Your task to perform on an android device: Is it going to rain tomorrow? Image 0: 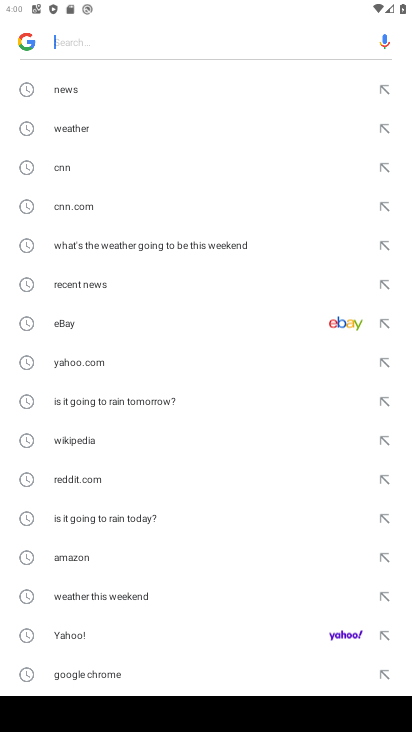
Step 0: press home button
Your task to perform on an android device: Is it going to rain tomorrow? Image 1: 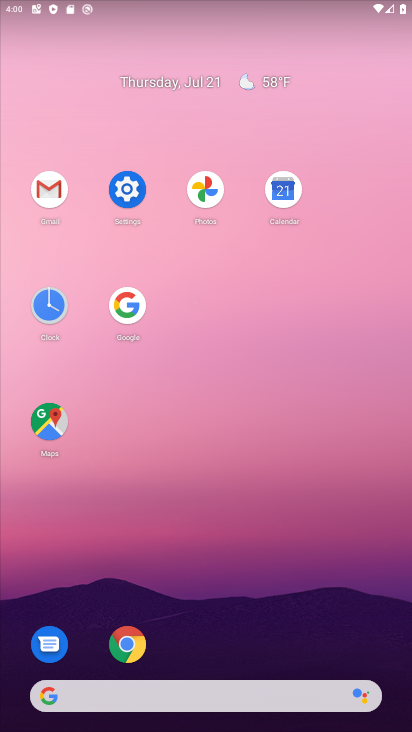
Step 1: click (128, 299)
Your task to perform on an android device: Is it going to rain tomorrow? Image 2: 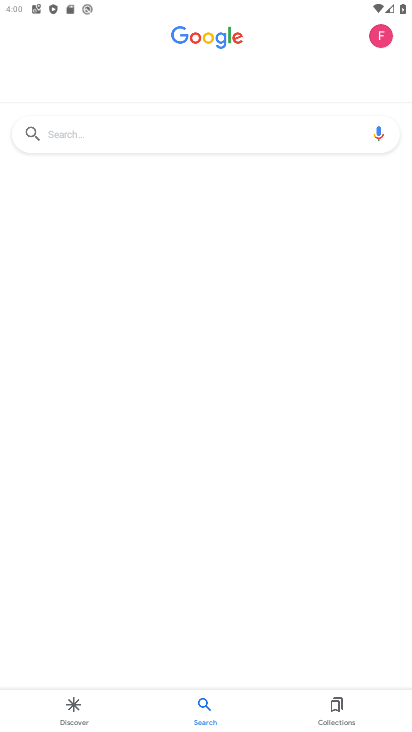
Step 2: drag from (271, 126) to (174, 126)
Your task to perform on an android device: Is it going to rain tomorrow? Image 3: 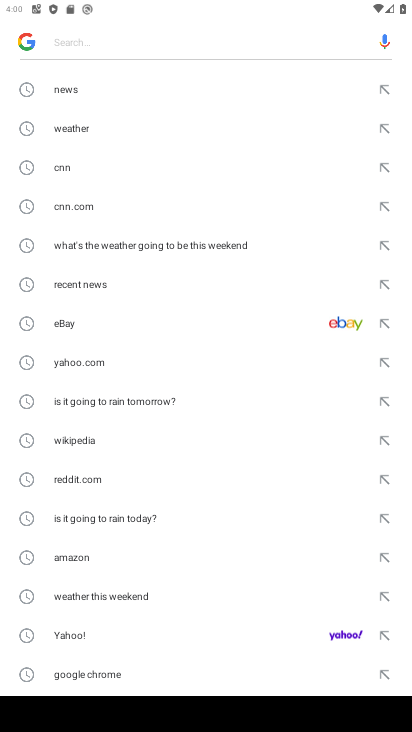
Step 3: drag from (271, 126) to (174, 126)
Your task to perform on an android device: Is it going to rain tomorrow? Image 4: 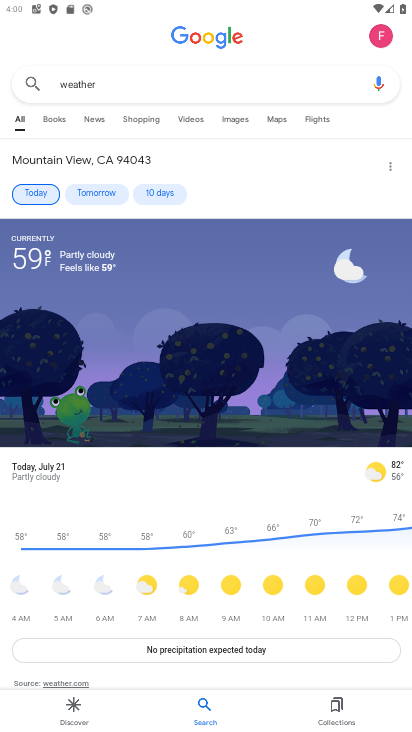
Step 4: click (111, 196)
Your task to perform on an android device: Is it going to rain tomorrow? Image 5: 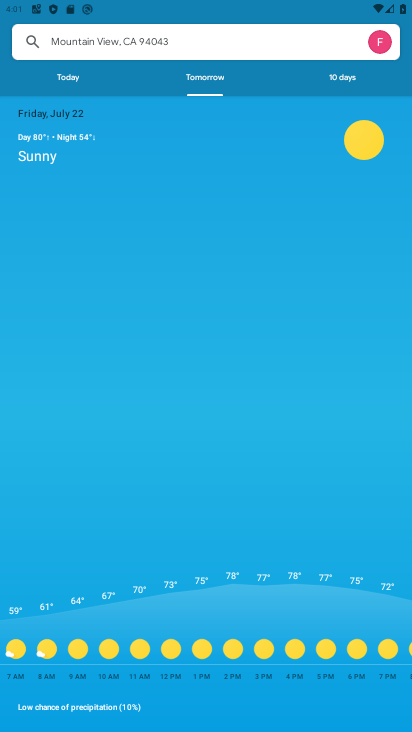
Step 5: task complete